Your task to perform on an android device: What's the price of the LG TV? Image 0: 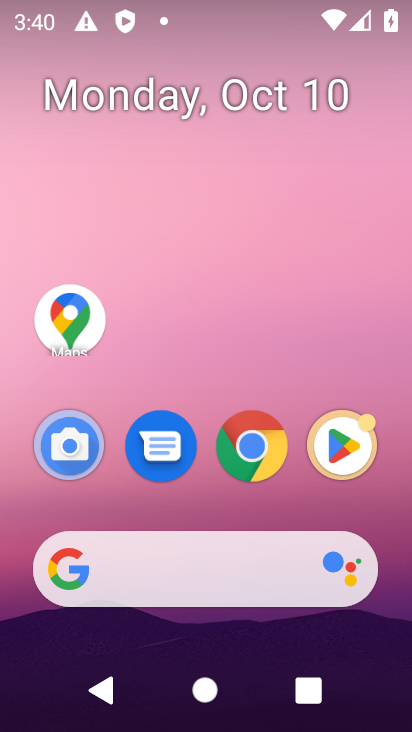
Step 0: click (181, 565)
Your task to perform on an android device: What's the price of the LG TV? Image 1: 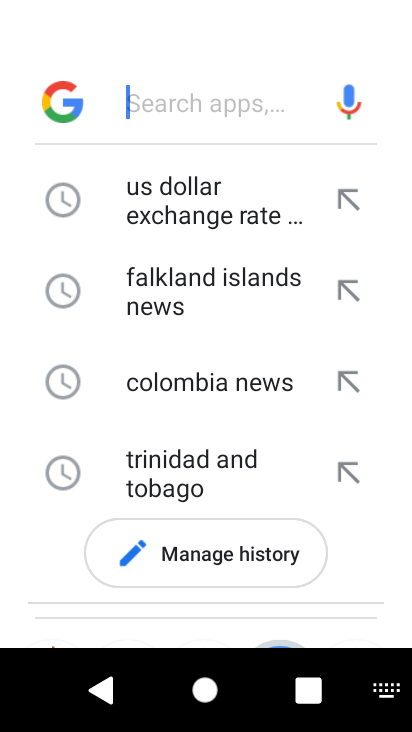
Step 1: type "LG TV"
Your task to perform on an android device: What's the price of the LG TV? Image 2: 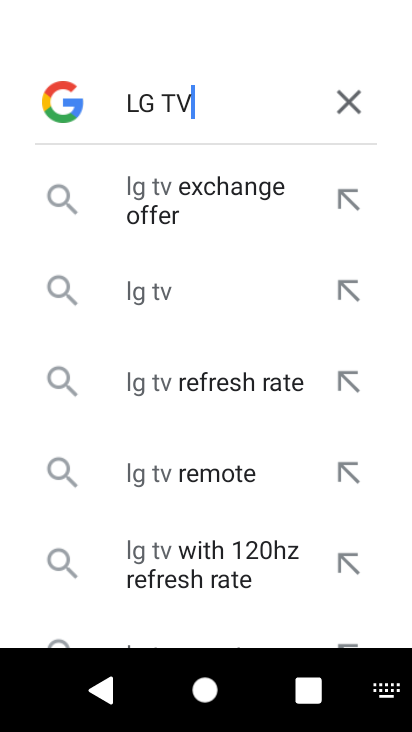
Step 2: type ""
Your task to perform on an android device: What's the price of the LG TV? Image 3: 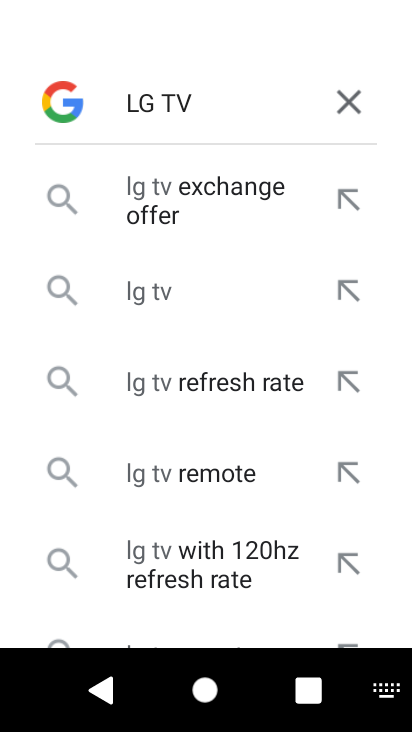
Step 3: click (172, 296)
Your task to perform on an android device: What's the price of the LG TV? Image 4: 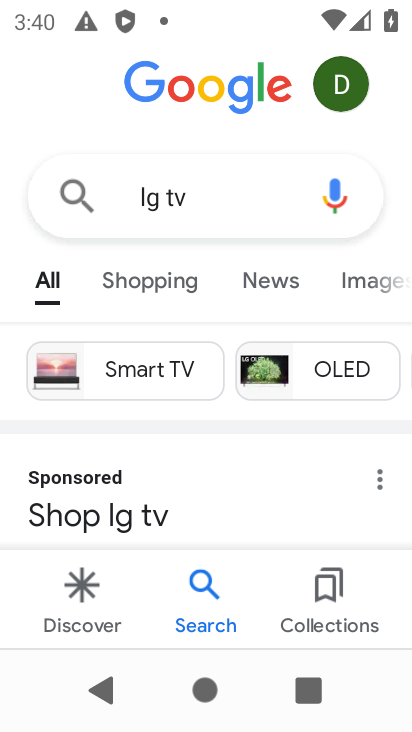
Step 4: task complete